Your task to perform on an android device: Open Maps and search for coffee Image 0: 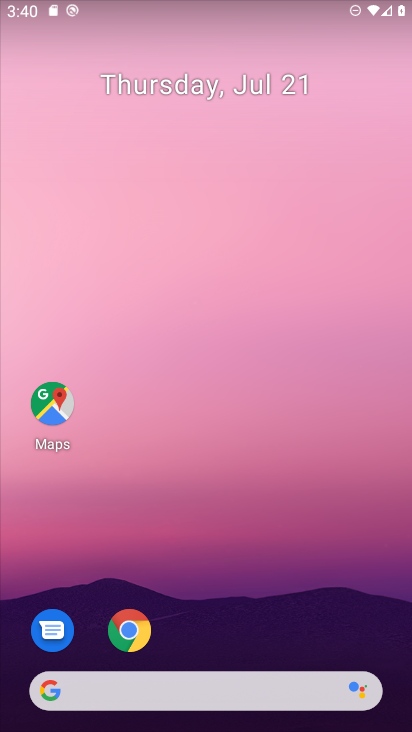
Step 0: click (56, 411)
Your task to perform on an android device: Open Maps and search for coffee Image 1: 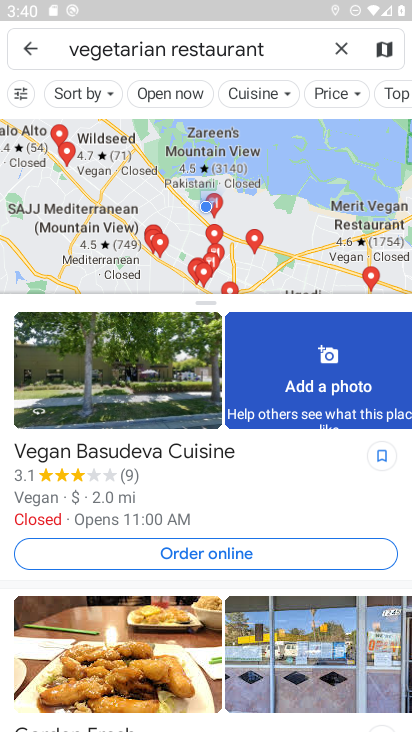
Step 1: click (342, 48)
Your task to perform on an android device: Open Maps and search for coffee Image 2: 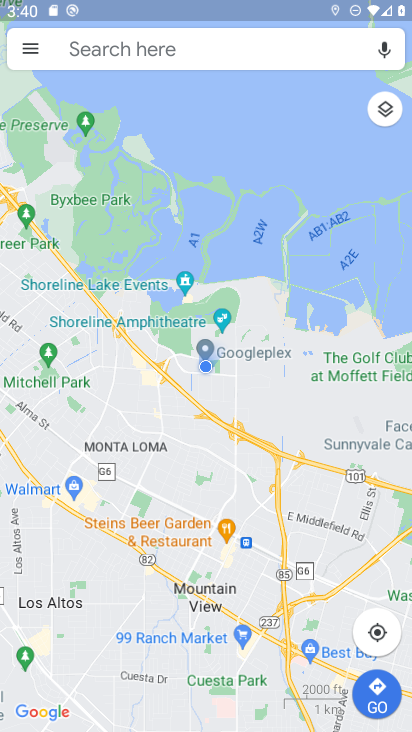
Step 2: click (178, 50)
Your task to perform on an android device: Open Maps and search for coffee Image 3: 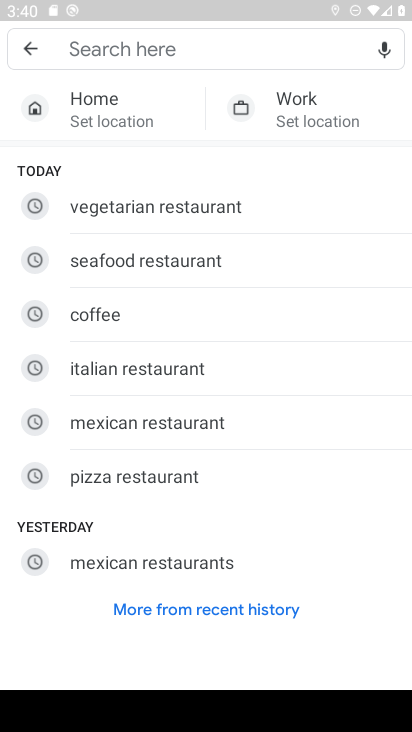
Step 3: click (105, 315)
Your task to perform on an android device: Open Maps and search for coffee Image 4: 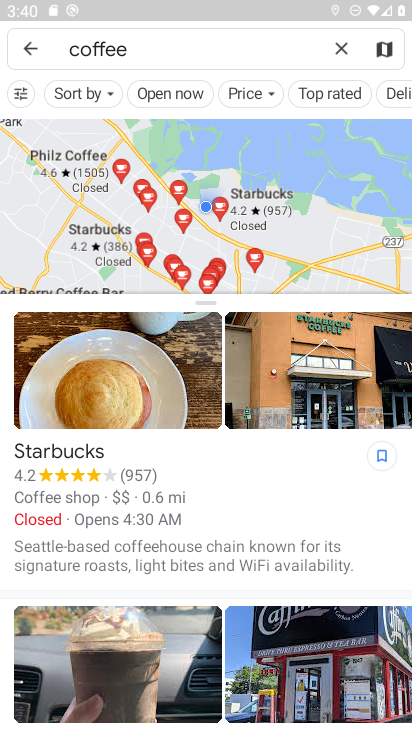
Step 4: task complete